Your task to perform on an android device: Open Youtube and go to "Your channel" Image 0: 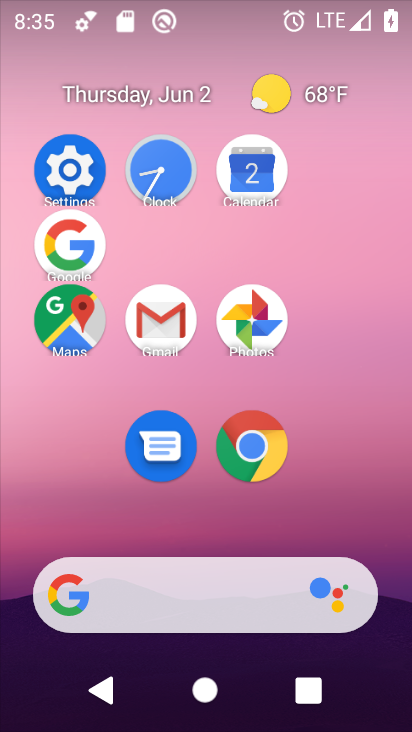
Step 0: drag from (316, 398) to (334, 2)
Your task to perform on an android device: Open Youtube and go to "Your channel" Image 1: 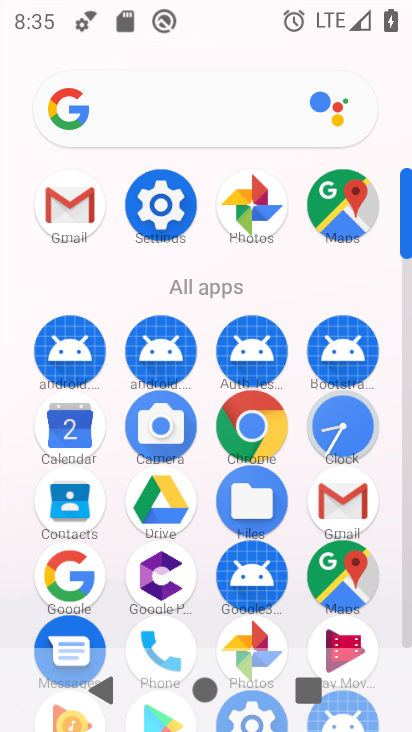
Step 1: drag from (298, 535) to (321, 127)
Your task to perform on an android device: Open Youtube and go to "Your channel" Image 2: 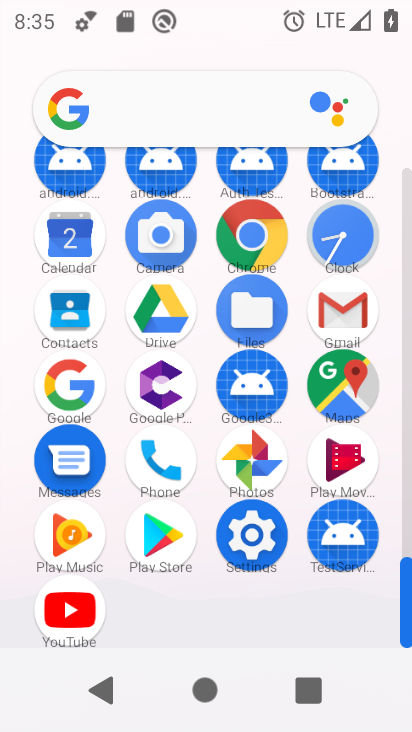
Step 2: drag from (222, 554) to (232, 206)
Your task to perform on an android device: Open Youtube and go to "Your channel" Image 3: 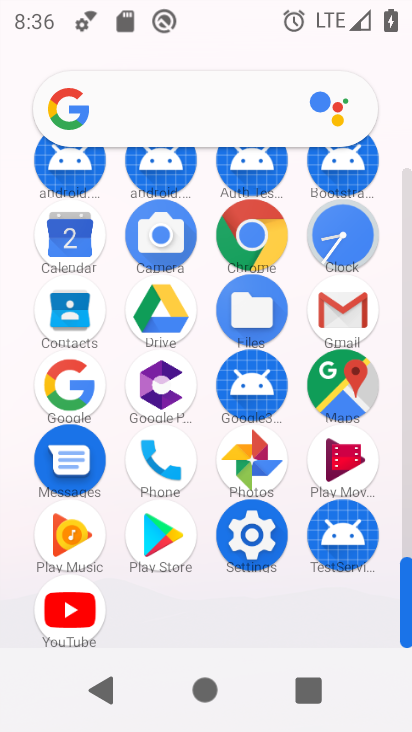
Step 3: drag from (70, 617) to (172, 250)
Your task to perform on an android device: Open Youtube and go to "Your channel" Image 4: 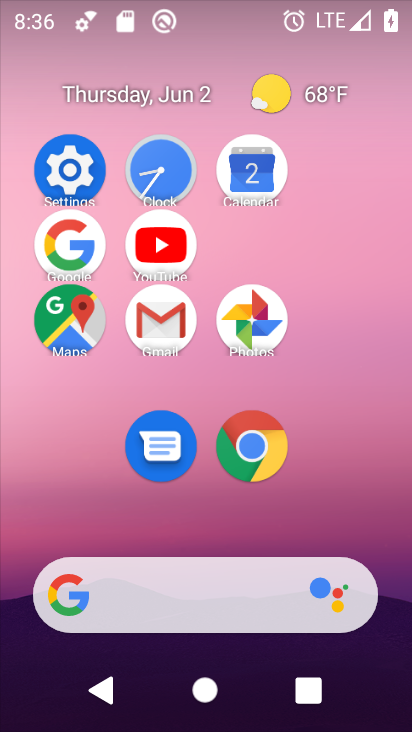
Step 4: click (171, 239)
Your task to perform on an android device: Open Youtube and go to "Your channel" Image 5: 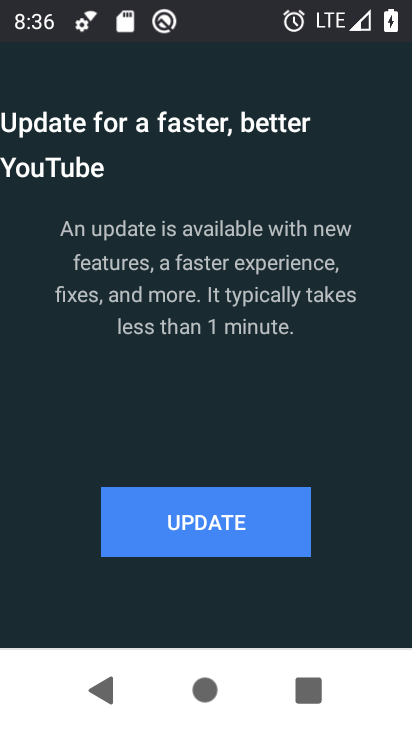
Step 5: click (203, 551)
Your task to perform on an android device: Open Youtube and go to "Your channel" Image 6: 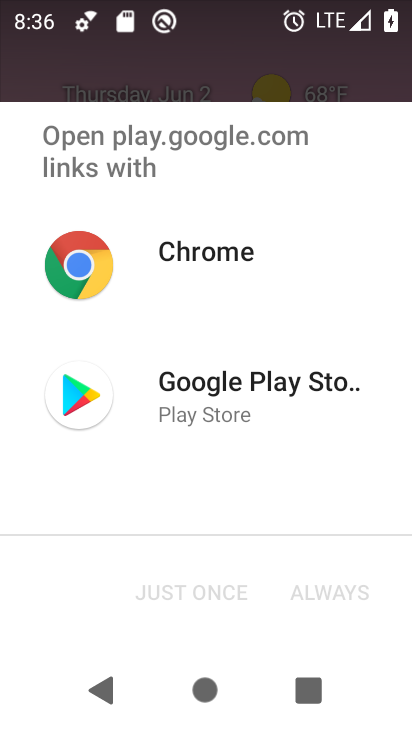
Step 6: click (318, 378)
Your task to perform on an android device: Open Youtube and go to "Your channel" Image 7: 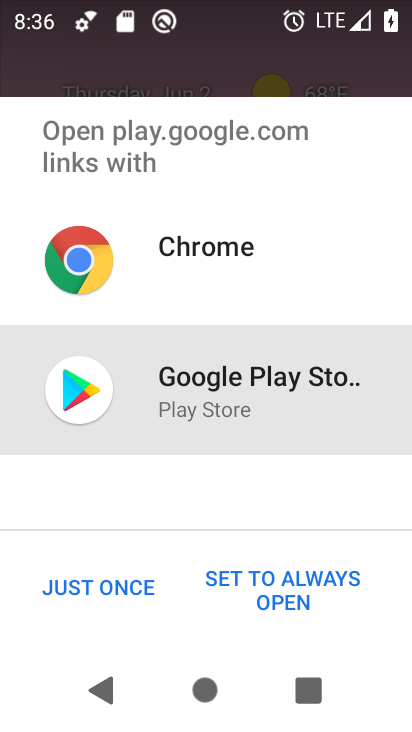
Step 7: click (318, 378)
Your task to perform on an android device: Open Youtube and go to "Your channel" Image 8: 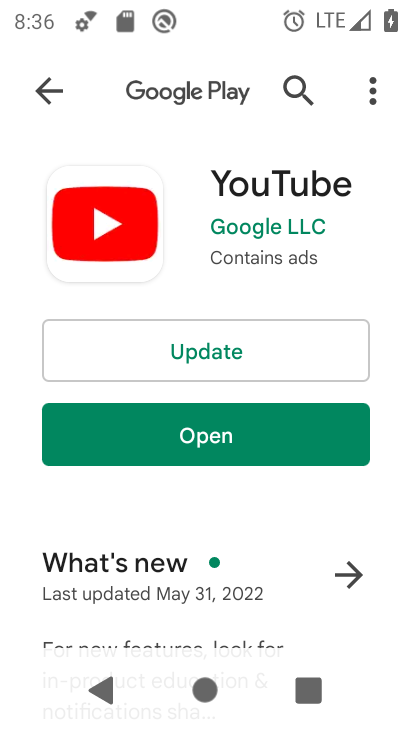
Step 8: click (231, 359)
Your task to perform on an android device: Open Youtube and go to "Your channel" Image 9: 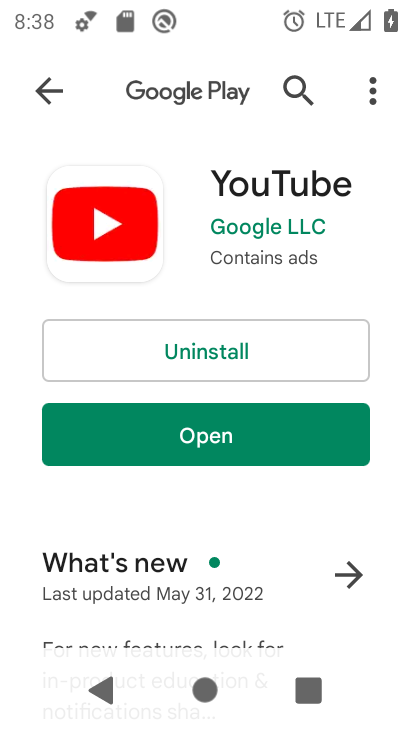
Step 9: click (239, 426)
Your task to perform on an android device: Open Youtube and go to "Your channel" Image 10: 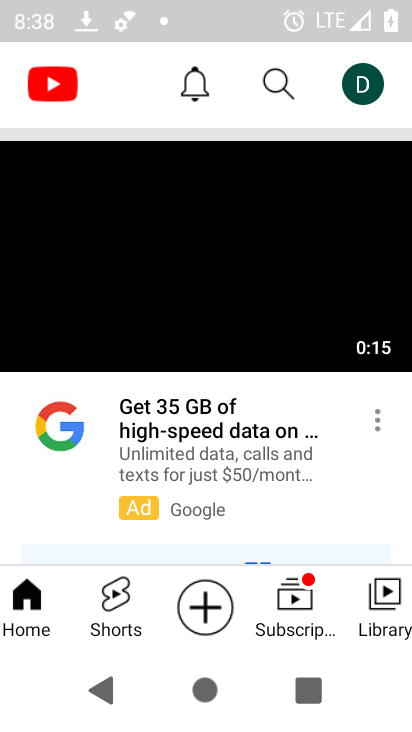
Step 10: click (362, 85)
Your task to perform on an android device: Open Youtube and go to "Your channel" Image 11: 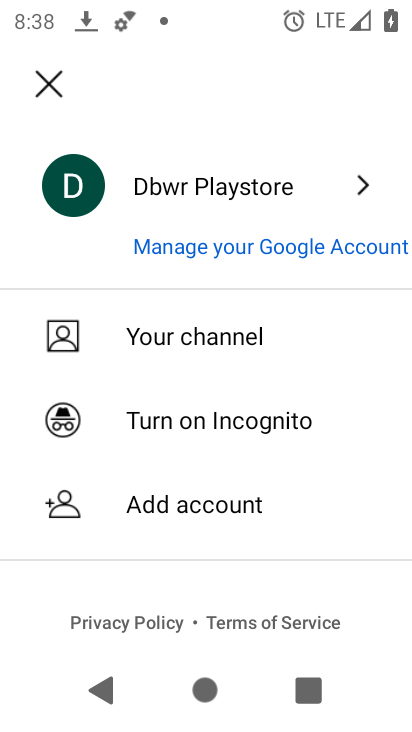
Step 11: click (187, 348)
Your task to perform on an android device: Open Youtube and go to "Your channel" Image 12: 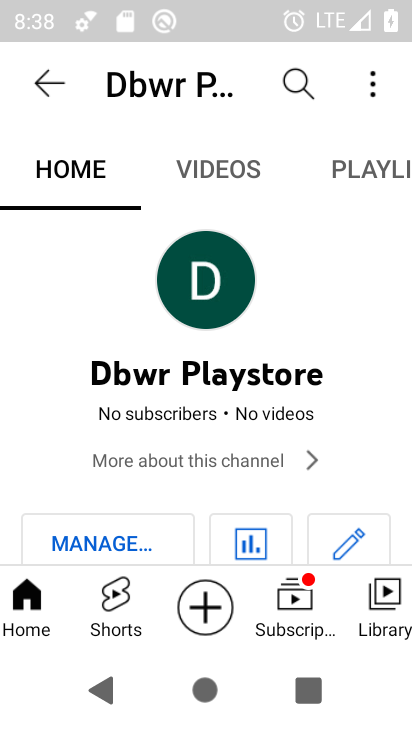
Step 12: task complete